Your task to perform on an android device: Play the last video I watched on Youtube Image 0: 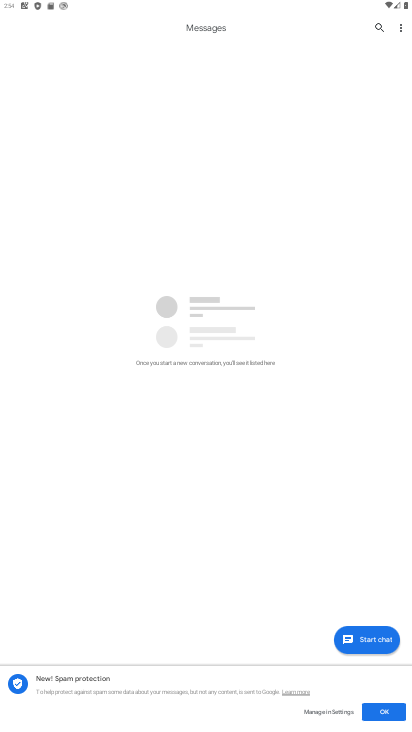
Step 0: press home button
Your task to perform on an android device: Play the last video I watched on Youtube Image 1: 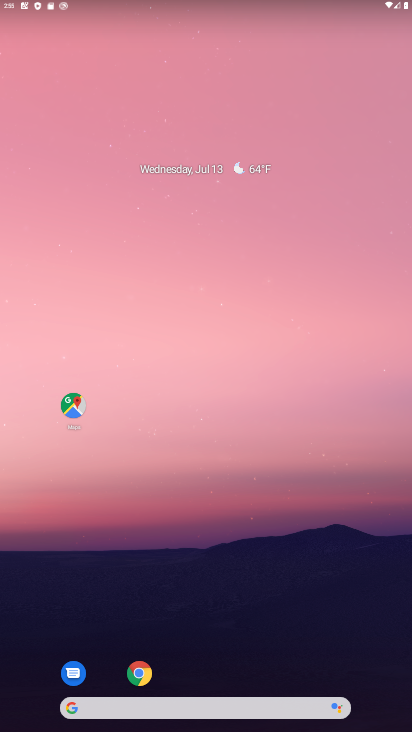
Step 1: drag from (322, 640) to (347, 124)
Your task to perform on an android device: Play the last video I watched on Youtube Image 2: 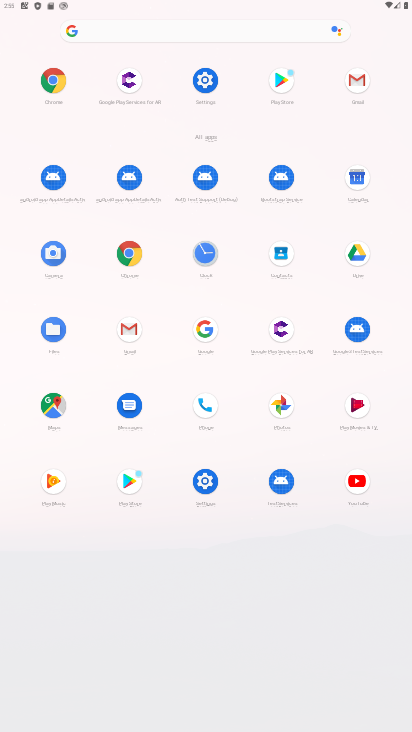
Step 2: click (356, 480)
Your task to perform on an android device: Play the last video I watched on Youtube Image 3: 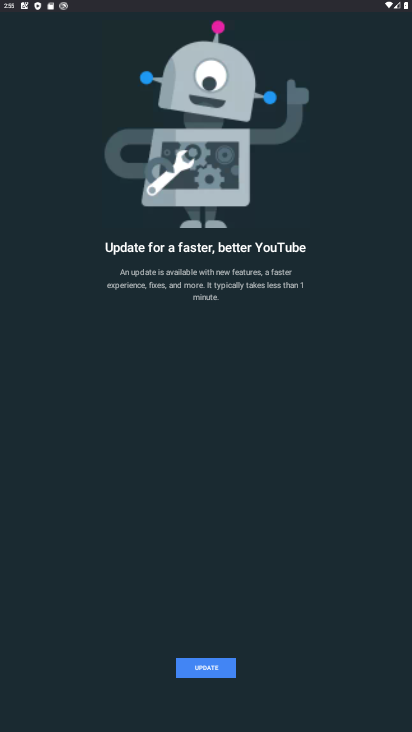
Step 3: click (216, 666)
Your task to perform on an android device: Play the last video I watched on Youtube Image 4: 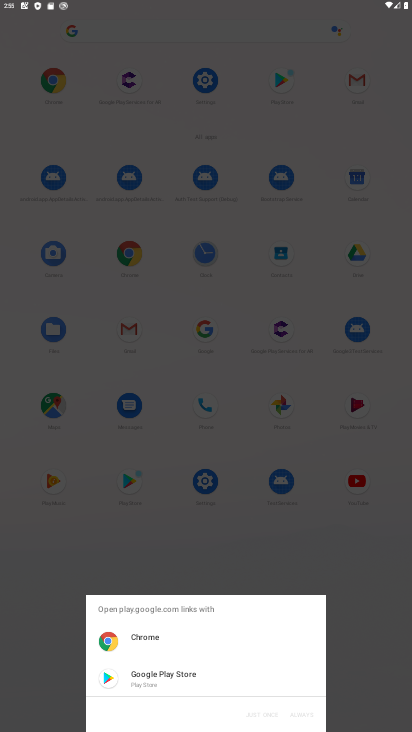
Step 4: click (194, 679)
Your task to perform on an android device: Play the last video I watched on Youtube Image 5: 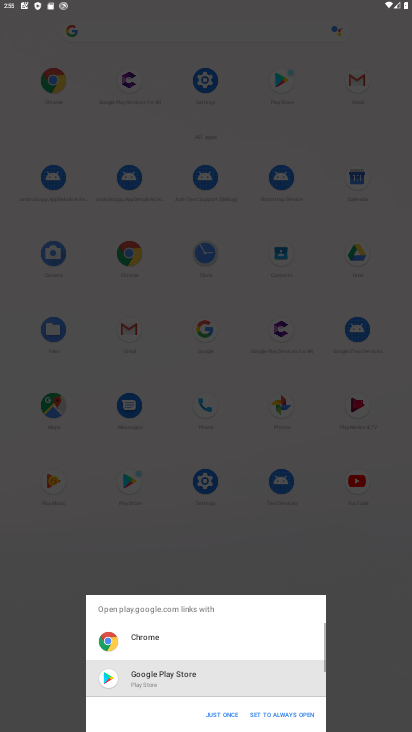
Step 5: click (223, 709)
Your task to perform on an android device: Play the last video I watched on Youtube Image 6: 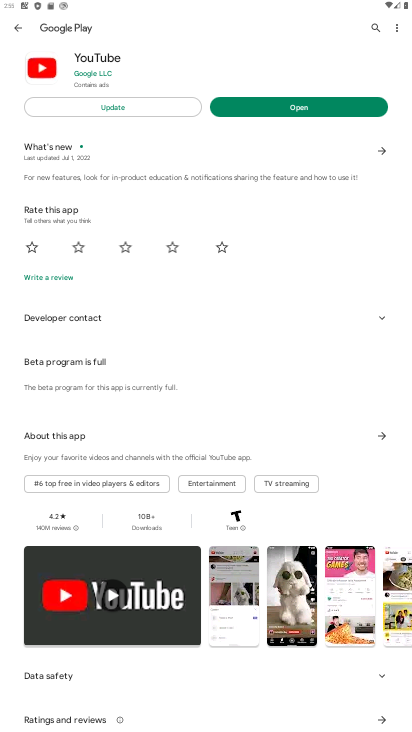
Step 6: click (155, 102)
Your task to perform on an android device: Play the last video I watched on Youtube Image 7: 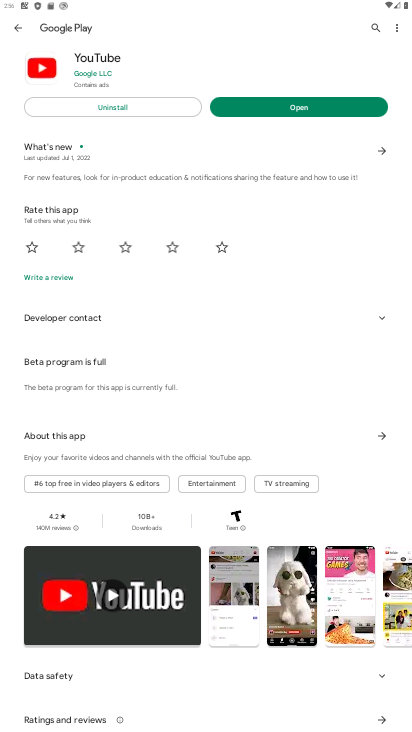
Step 7: task complete